Your task to perform on an android device: turn notification dots on Image 0: 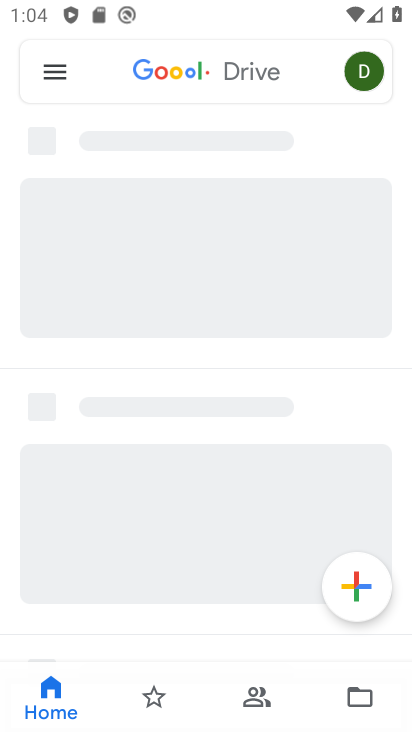
Step 0: drag from (350, 580) to (363, 243)
Your task to perform on an android device: turn notification dots on Image 1: 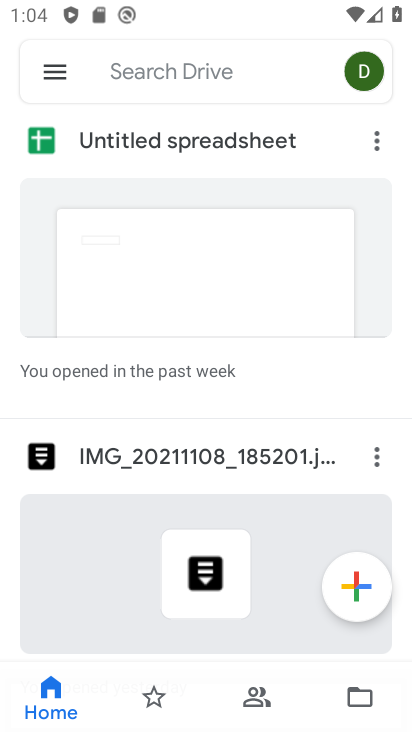
Step 1: press home button
Your task to perform on an android device: turn notification dots on Image 2: 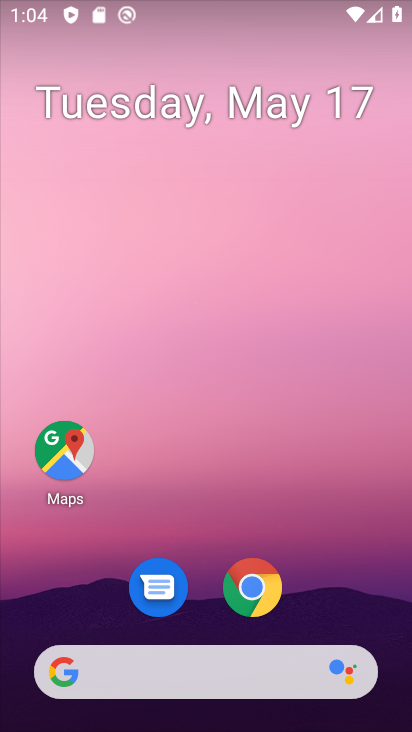
Step 2: drag from (363, 601) to (364, 156)
Your task to perform on an android device: turn notification dots on Image 3: 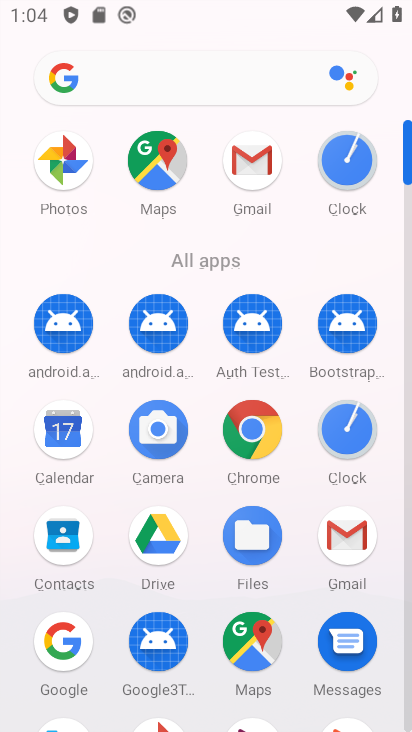
Step 3: drag from (284, 589) to (294, 234)
Your task to perform on an android device: turn notification dots on Image 4: 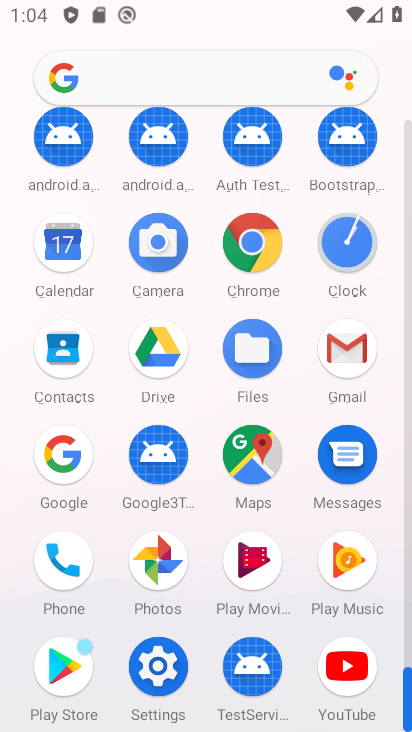
Step 4: click (169, 687)
Your task to perform on an android device: turn notification dots on Image 5: 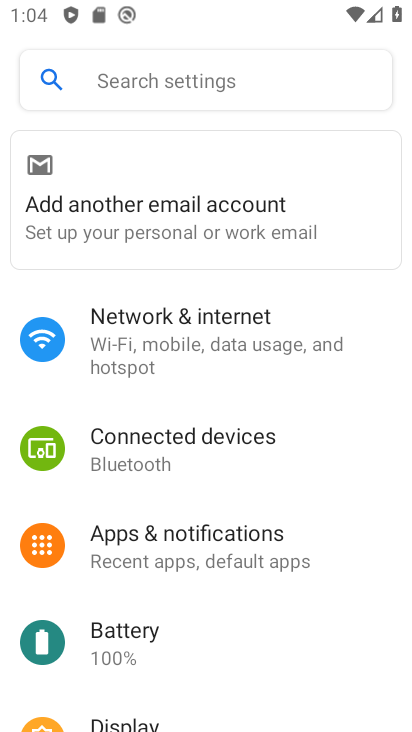
Step 5: drag from (319, 682) to (388, 284)
Your task to perform on an android device: turn notification dots on Image 6: 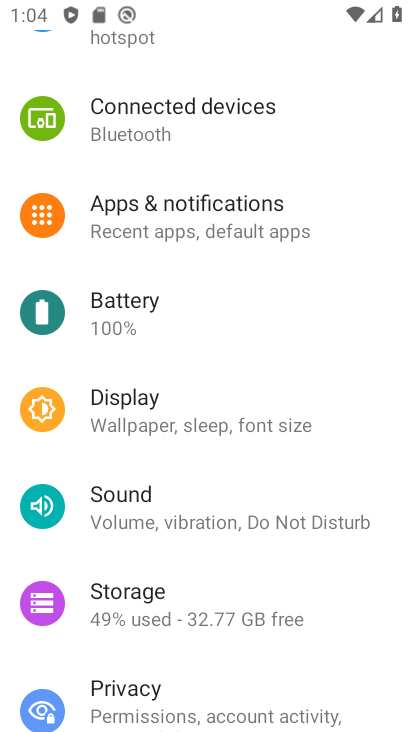
Step 6: drag from (381, 686) to (386, 230)
Your task to perform on an android device: turn notification dots on Image 7: 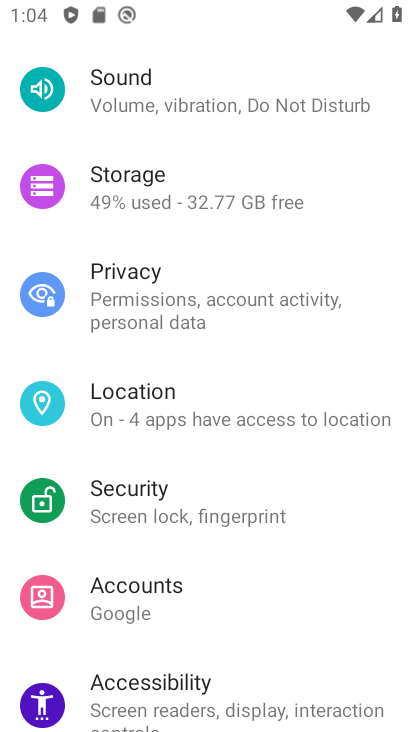
Step 7: drag from (329, 581) to (376, 268)
Your task to perform on an android device: turn notification dots on Image 8: 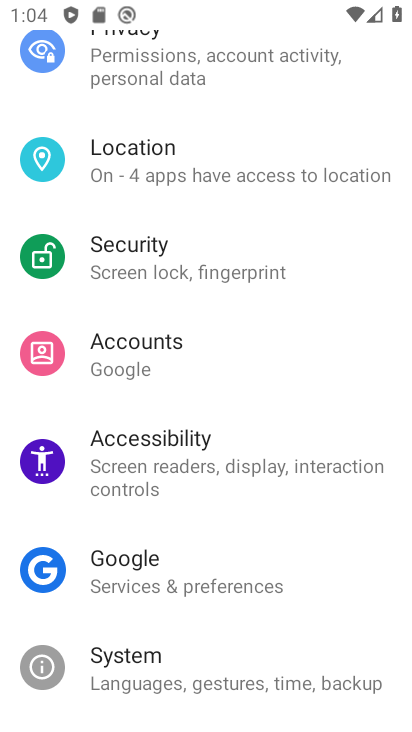
Step 8: drag from (258, 193) to (251, 598)
Your task to perform on an android device: turn notification dots on Image 9: 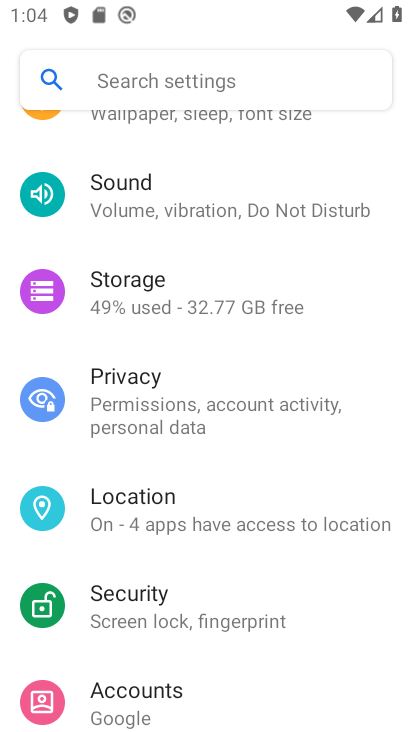
Step 9: drag from (223, 241) to (207, 585)
Your task to perform on an android device: turn notification dots on Image 10: 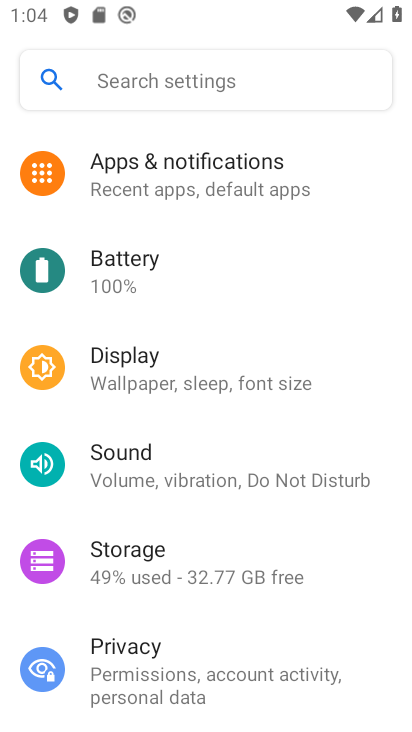
Step 10: click (219, 194)
Your task to perform on an android device: turn notification dots on Image 11: 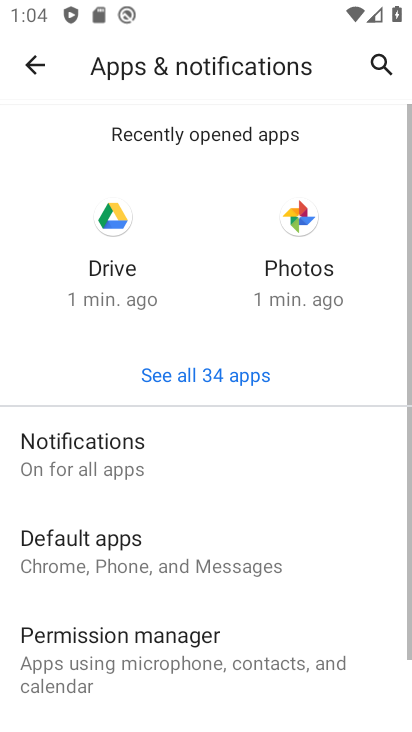
Step 11: click (175, 492)
Your task to perform on an android device: turn notification dots on Image 12: 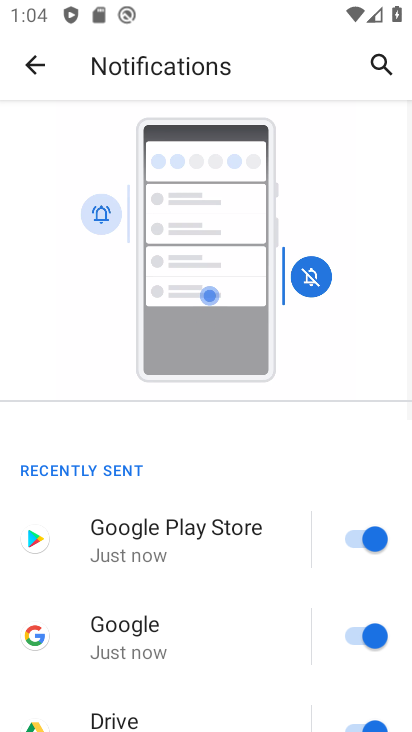
Step 12: drag from (282, 680) to (277, 298)
Your task to perform on an android device: turn notification dots on Image 13: 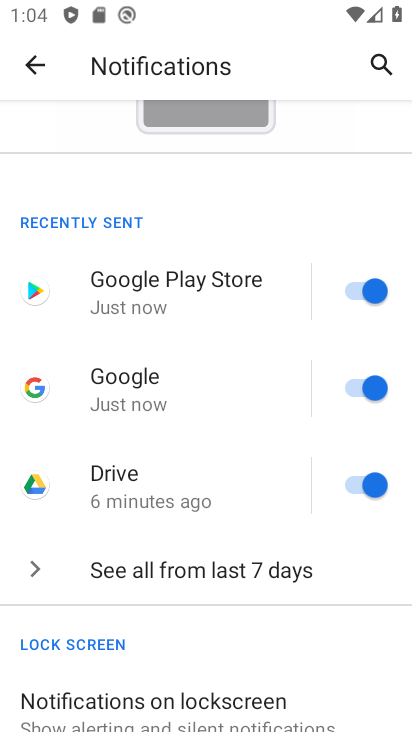
Step 13: drag from (249, 635) to (293, 271)
Your task to perform on an android device: turn notification dots on Image 14: 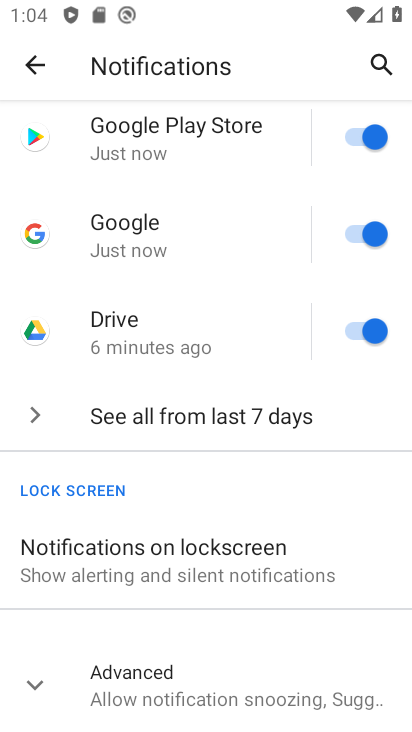
Step 14: drag from (276, 598) to (280, 251)
Your task to perform on an android device: turn notification dots on Image 15: 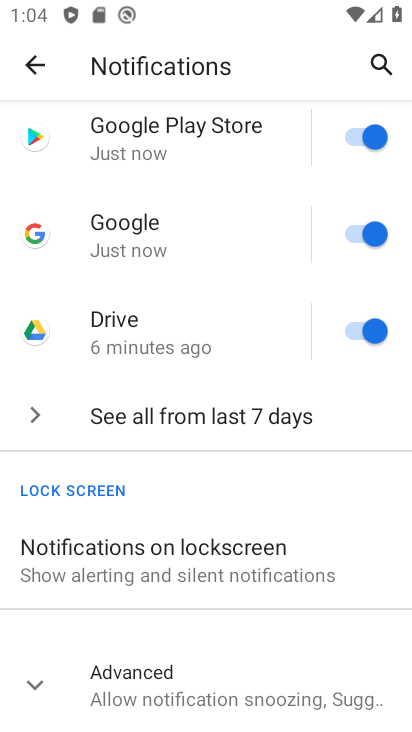
Step 15: click (256, 708)
Your task to perform on an android device: turn notification dots on Image 16: 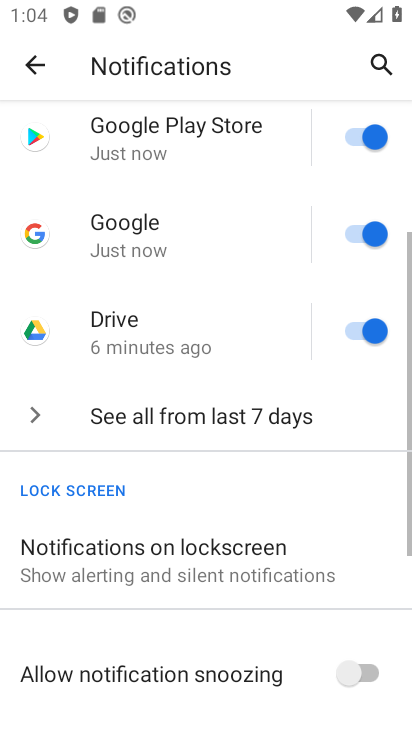
Step 16: task complete